Your task to perform on an android device: snooze an email in the gmail app Image 0: 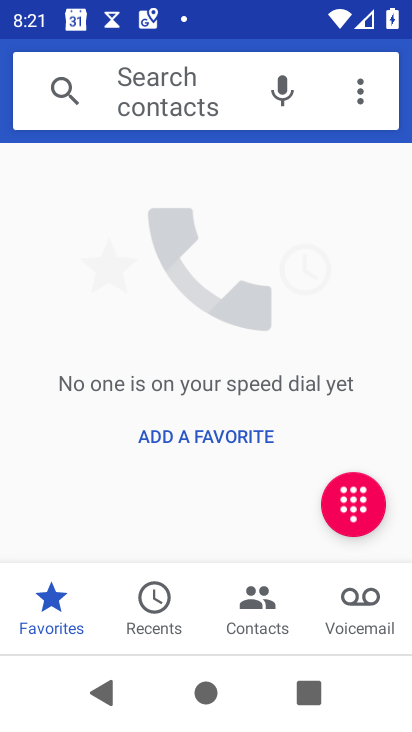
Step 0: press home button
Your task to perform on an android device: snooze an email in the gmail app Image 1: 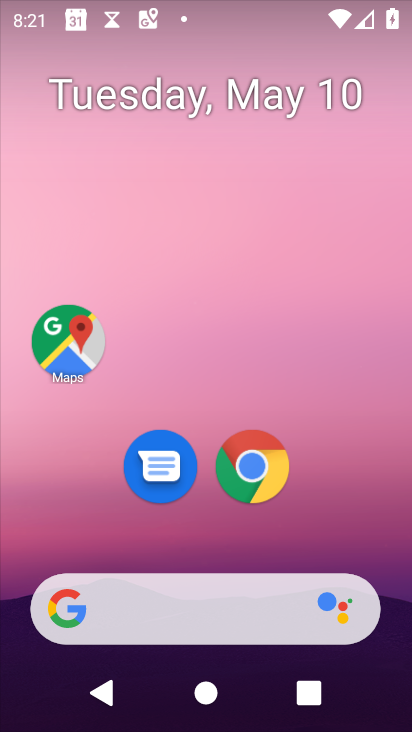
Step 1: drag from (315, 534) to (330, 39)
Your task to perform on an android device: snooze an email in the gmail app Image 2: 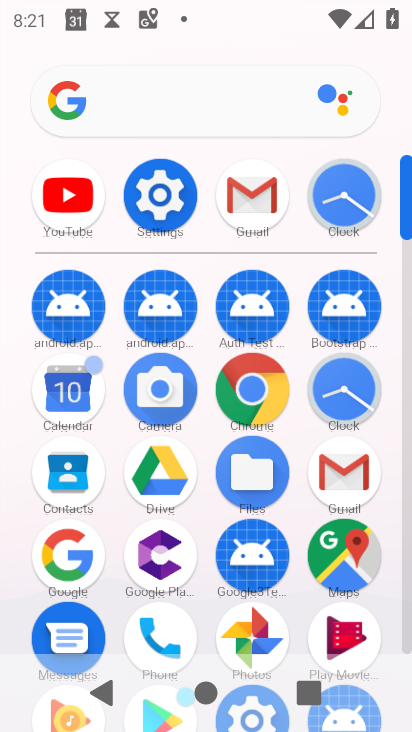
Step 2: click (259, 211)
Your task to perform on an android device: snooze an email in the gmail app Image 3: 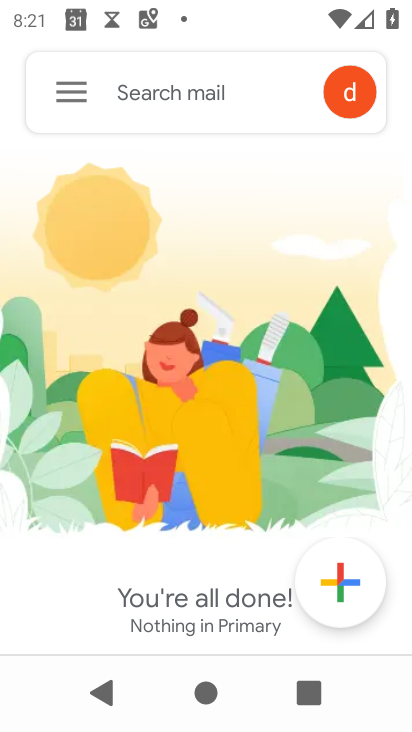
Step 3: click (54, 93)
Your task to perform on an android device: snooze an email in the gmail app Image 4: 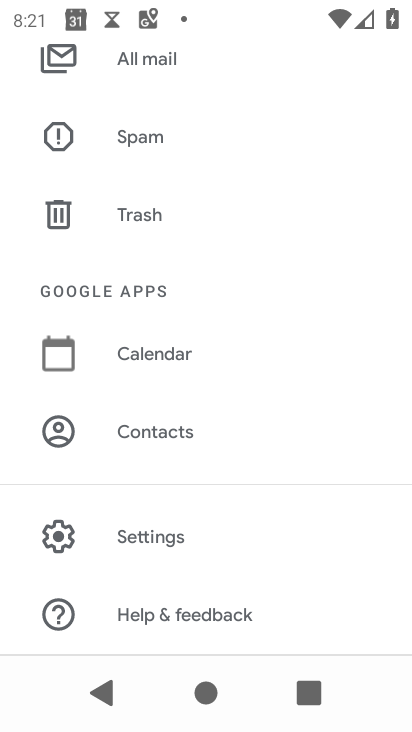
Step 4: click (219, 64)
Your task to perform on an android device: snooze an email in the gmail app Image 5: 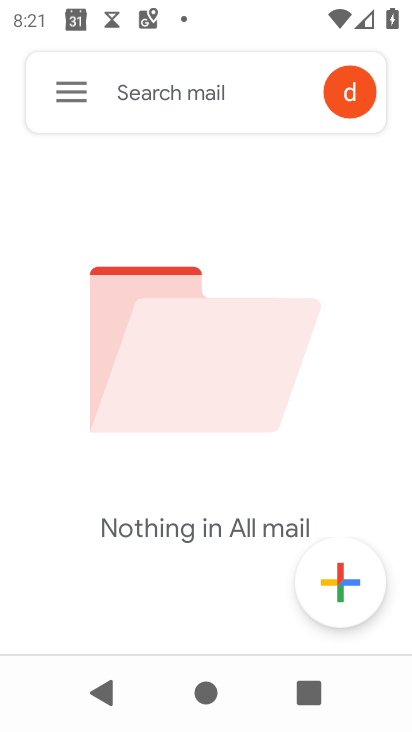
Step 5: task complete